Your task to perform on an android device: Open calendar and show me the first week of next month Image 0: 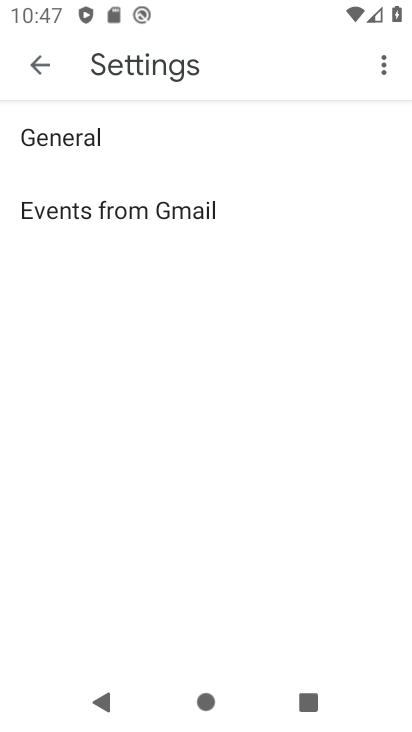
Step 0: press home button
Your task to perform on an android device: Open calendar and show me the first week of next month Image 1: 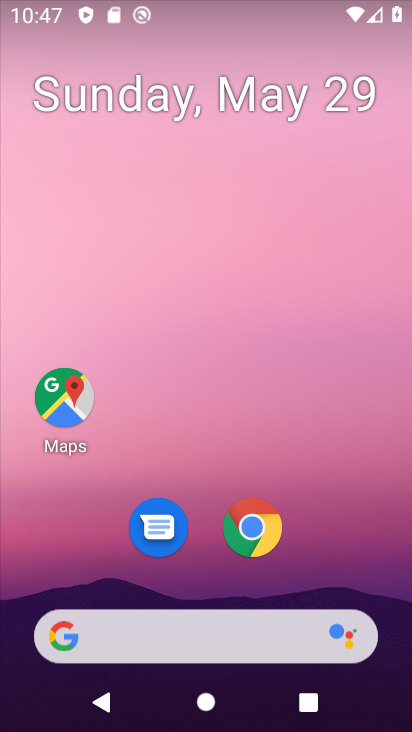
Step 1: click (169, 116)
Your task to perform on an android device: Open calendar and show me the first week of next month Image 2: 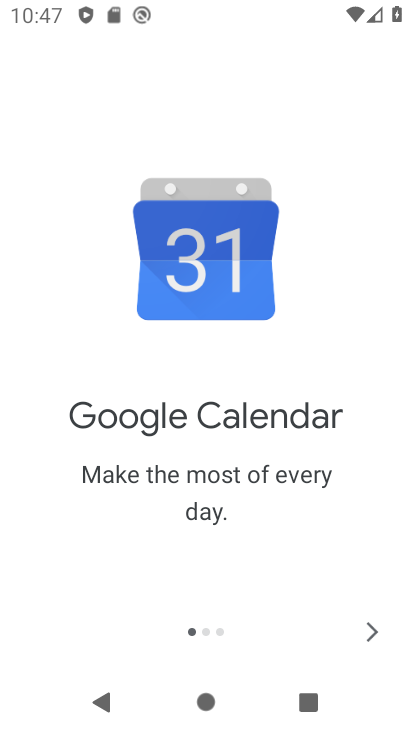
Step 2: click (382, 626)
Your task to perform on an android device: Open calendar and show me the first week of next month Image 3: 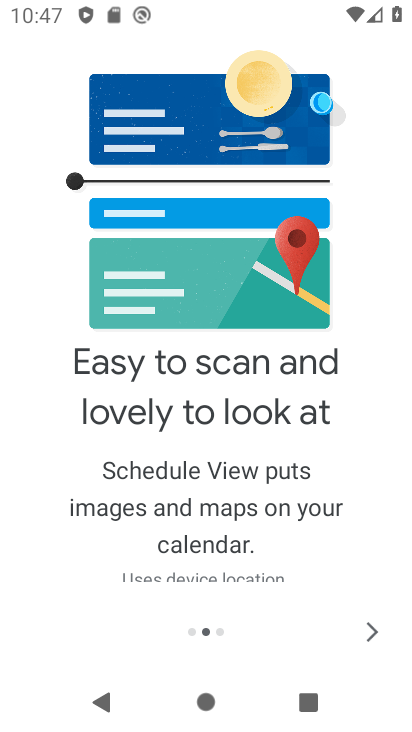
Step 3: click (382, 626)
Your task to perform on an android device: Open calendar and show me the first week of next month Image 4: 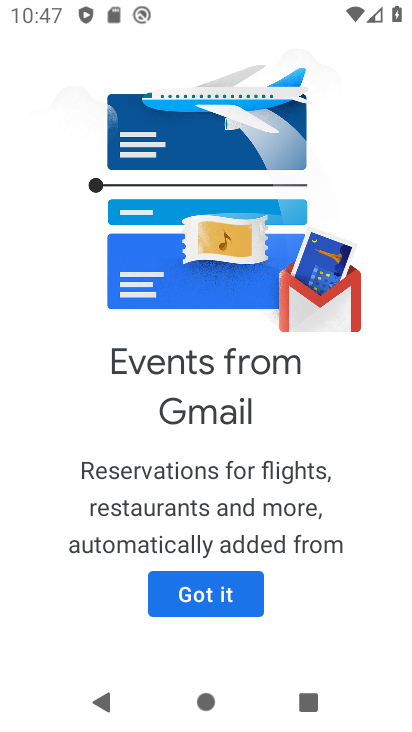
Step 4: click (223, 576)
Your task to perform on an android device: Open calendar and show me the first week of next month Image 5: 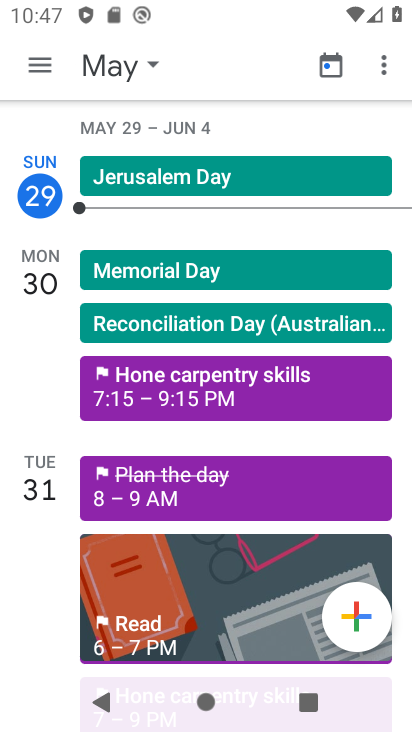
Step 5: click (142, 64)
Your task to perform on an android device: Open calendar and show me the first week of next month Image 6: 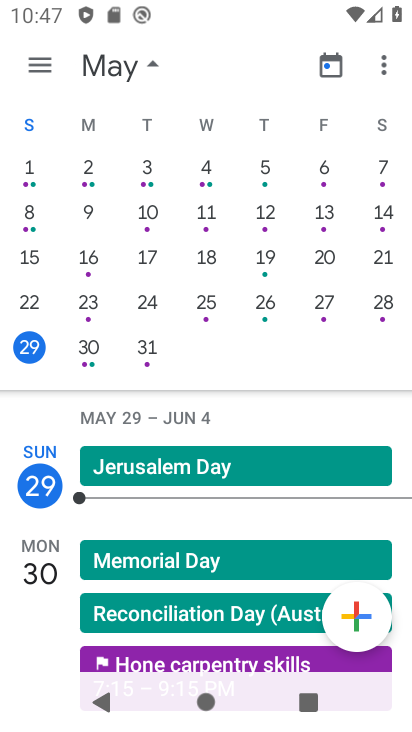
Step 6: task complete